Your task to perform on an android device: turn smart compose on in the gmail app Image 0: 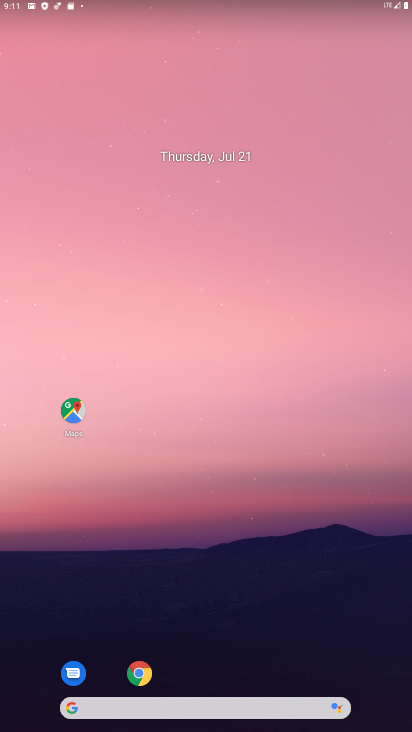
Step 0: drag from (187, 666) to (291, 128)
Your task to perform on an android device: turn smart compose on in the gmail app Image 1: 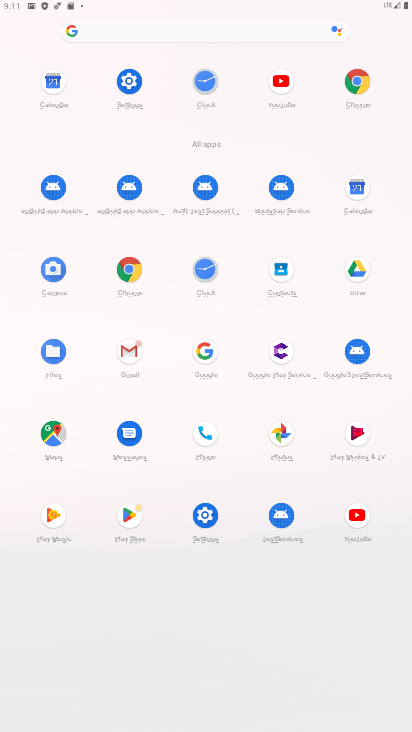
Step 1: click (127, 351)
Your task to perform on an android device: turn smart compose on in the gmail app Image 2: 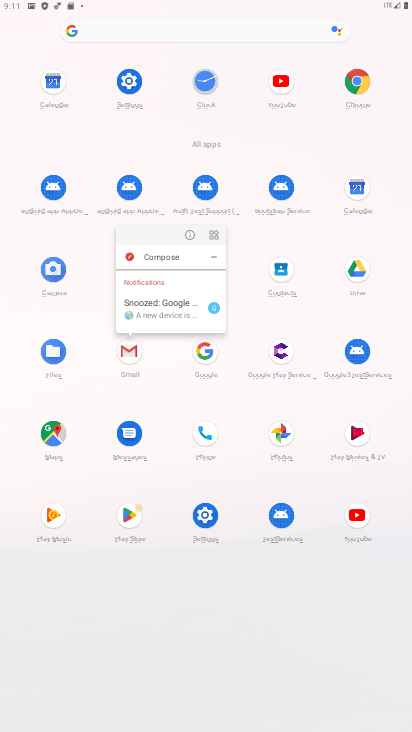
Step 2: click (186, 232)
Your task to perform on an android device: turn smart compose on in the gmail app Image 3: 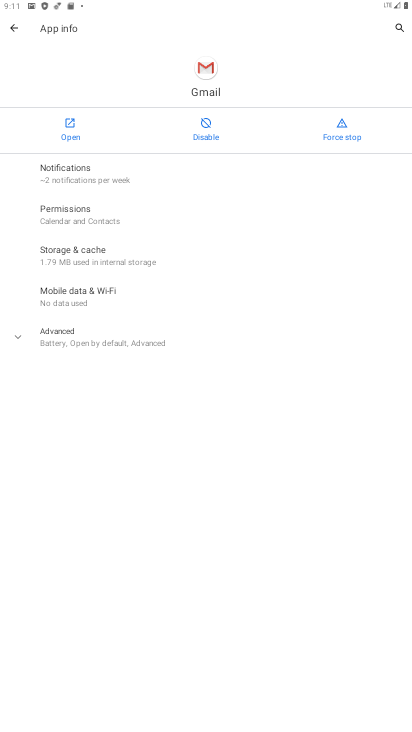
Step 3: click (65, 125)
Your task to perform on an android device: turn smart compose on in the gmail app Image 4: 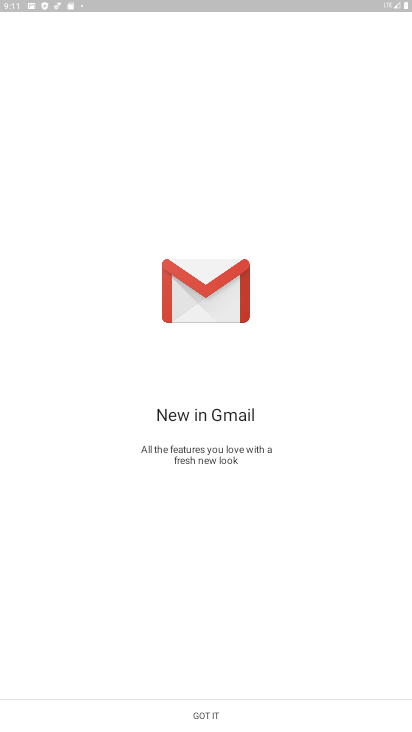
Step 4: click (196, 710)
Your task to perform on an android device: turn smart compose on in the gmail app Image 5: 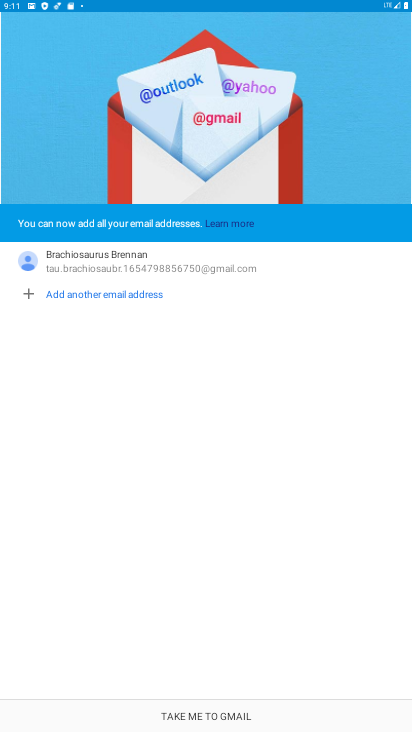
Step 5: click (204, 719)
Your task to perform on an android device: turn smart compose on in the gmail app Image 6: 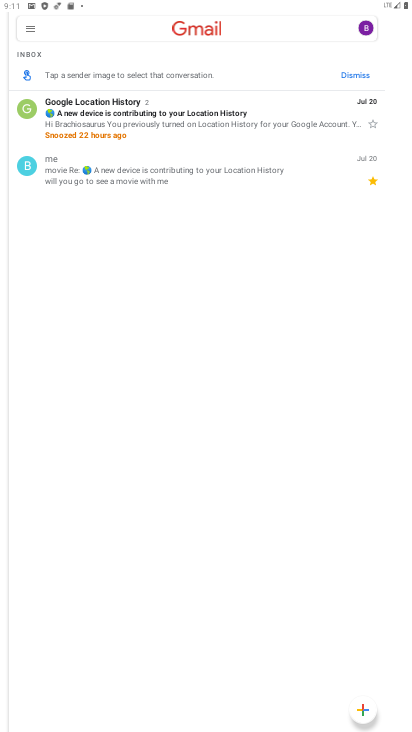
Step 6: drag from (283, 538) to (285, 261)
Your task to perform on an android device: turn smart compose on in the gmail app Image 7: 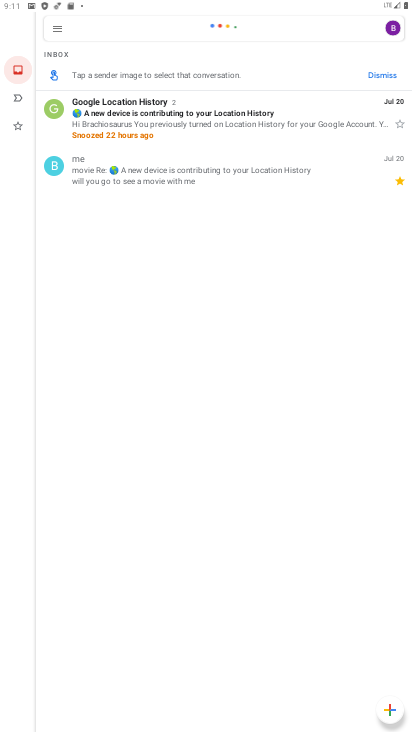
Step 7: drag from (257, 346) to (288, 645)
Your task to perform on an android device: turn smart compose on in the gmail app Image 8: 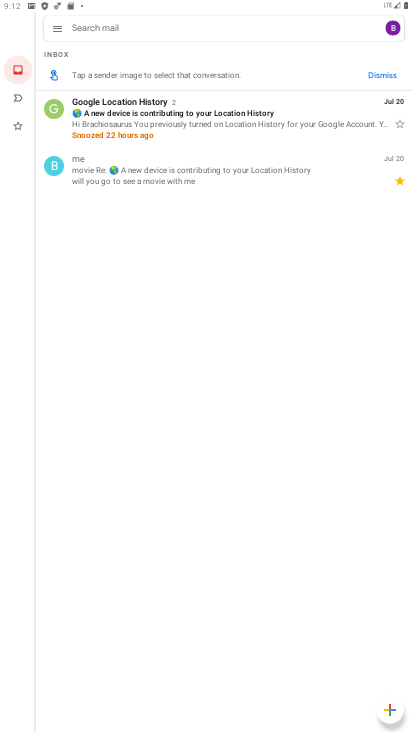
Step 8: click (53, 30)
Your task to perform on an android device: turn smart compose on in the gmail app Image 9: 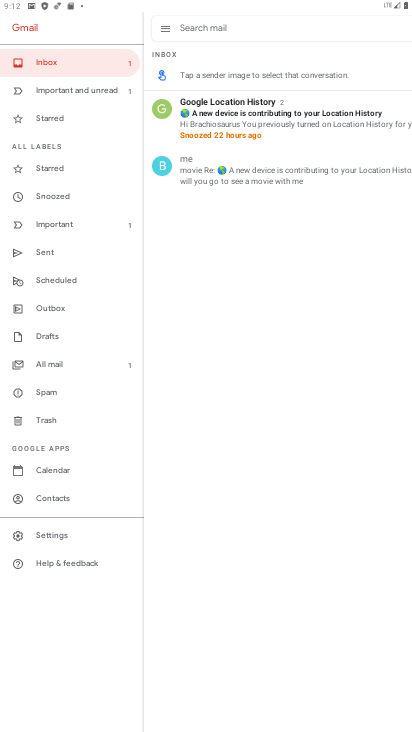
Step 9: click (50, 532)
Your task to perform on an android device: turn smart compose on in the gmail app Image 10: 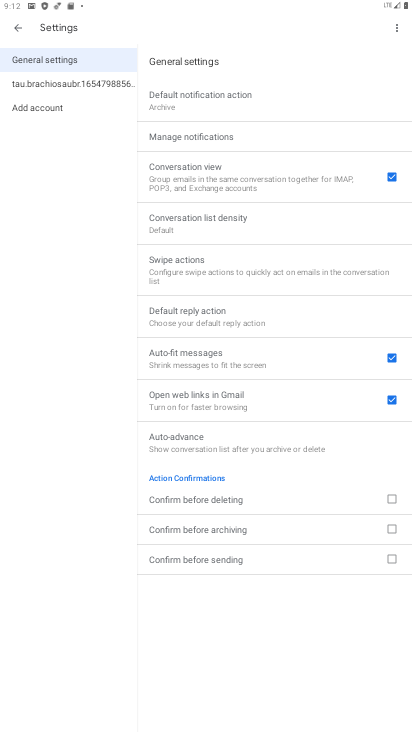
Step 10: click (82, 85)
Your task to perform on an android device: turn smart compose on in the gmail app Image 11: 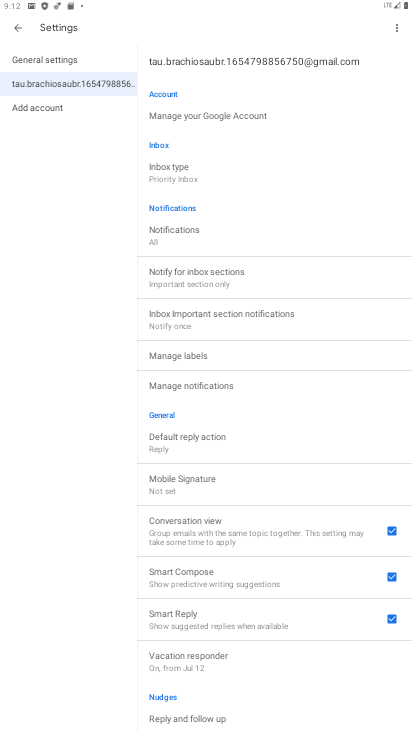
Step 11: task complete